Your task to perform on an android device: Do I have any events tomorrow? Image 0: 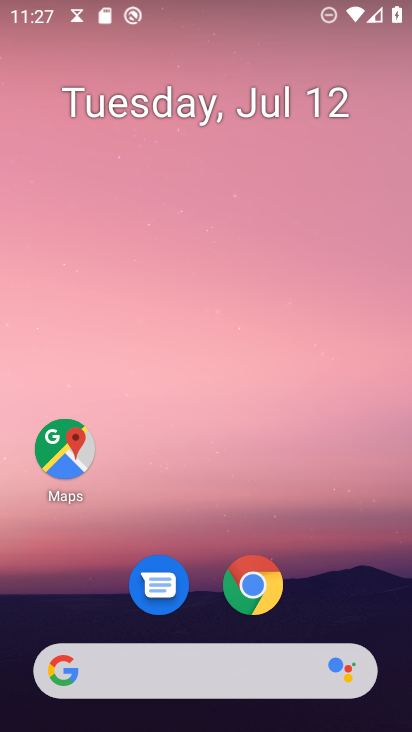
Step 0: drag from (201, 666) to (404, 108)
Your task to perform on an android device: Do I have any events tomorrow? Image 1: 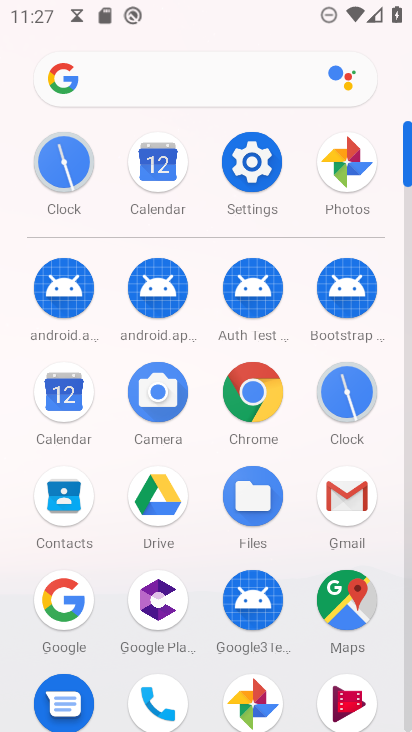
Step 1: click (158, 176)
Your task to perform on an android device: Do I have any events tomorrow? Image 2: 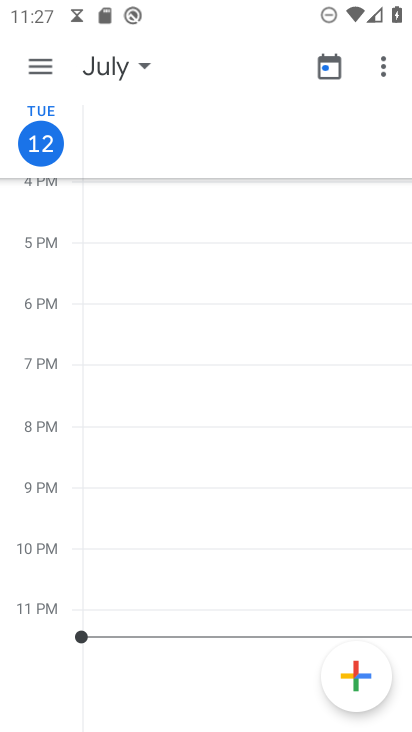
Step 2: click (101, 72)
Your task to perform on an android device: Do I have any events tomorrow? Image 3: 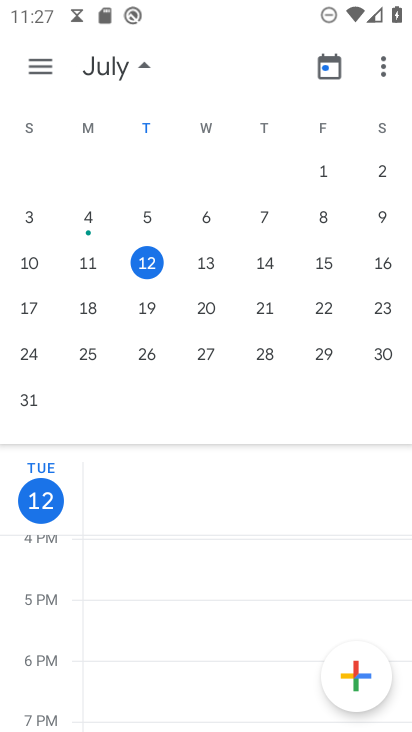
Step 3: click (205, 259)
Your task to perform on an android device: Do I have any events tomorrow? Image 4: 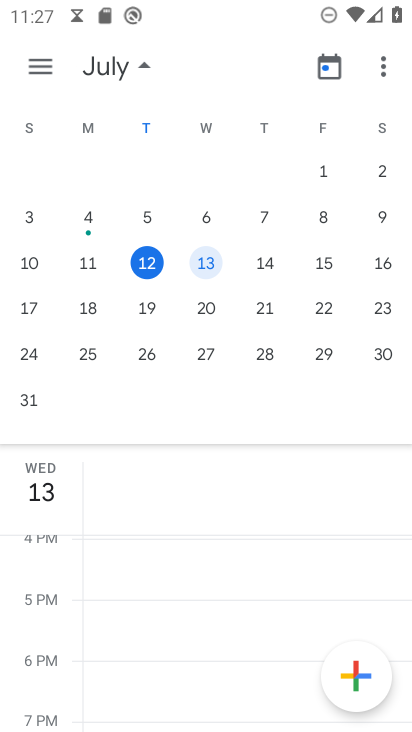
Step 4: click (43, 62)
Your task to perform on an android device: Do I have any events tomorrow? Image 5: 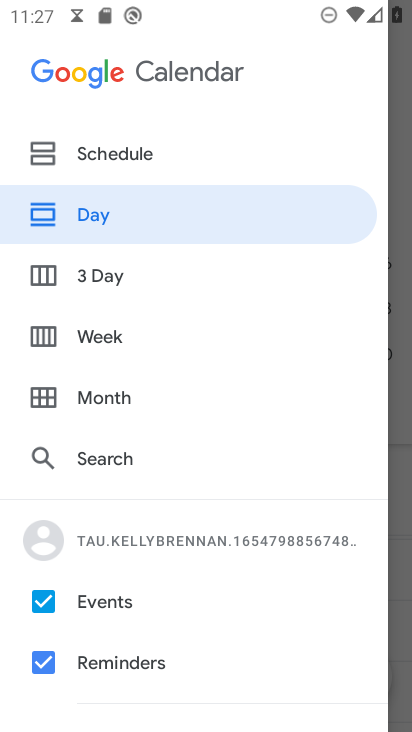
Step 5: click (123, 152)
Your task to perform on an android device: Do I have any events tomorrow? Image 6: 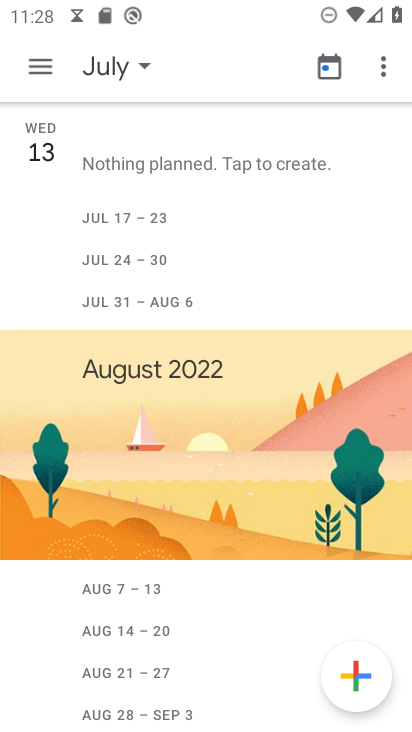
Step 6: task complete